Your task to perform on an android device: refresh tabs in the chrome app Image 0: 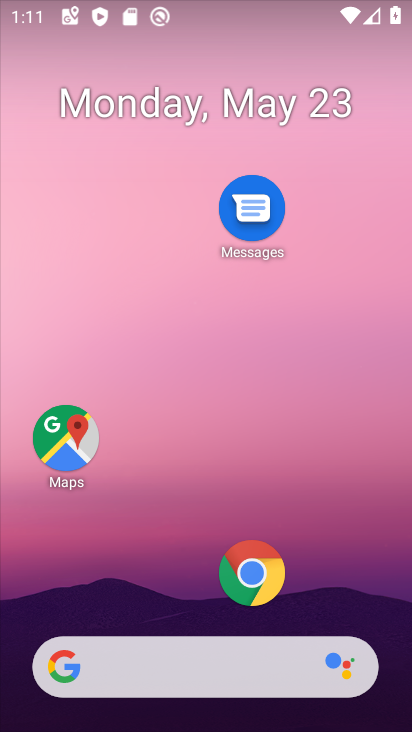
Step 0: drag from (160, 546) to (168, 155)
Your task to perform on an android device: refresh tabs in the chrome app Image 1: 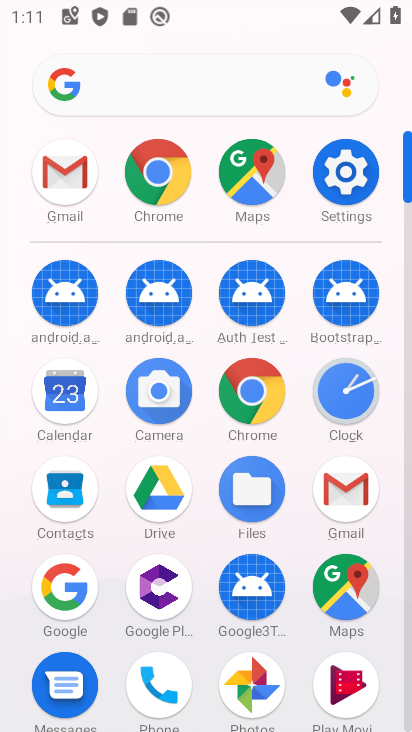
Step 1: click (167, 180)
Your task to perform on an android device: refresh tabs in the chrome app Image 2: 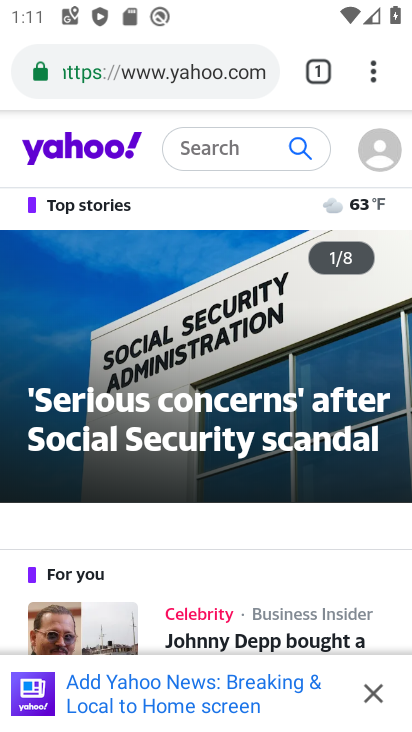
Step 2: click (376, 689)
Your task to perform on an android device: refresh tabs in the chrome app Image 3: 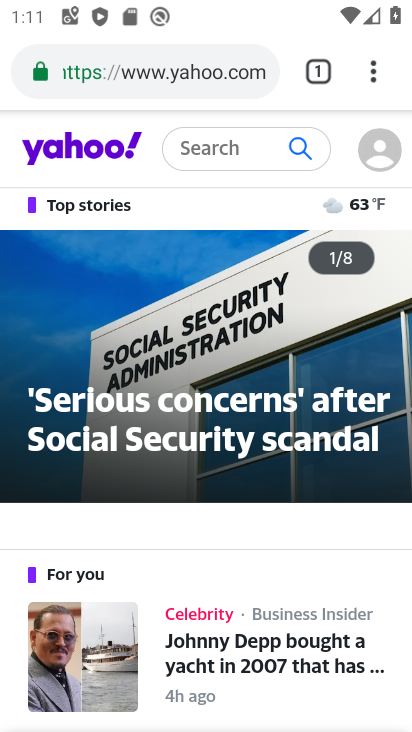
Step 3: click (370, 76)
Your task to perform on an android device: refresh tabs in the chrome app Image 4: 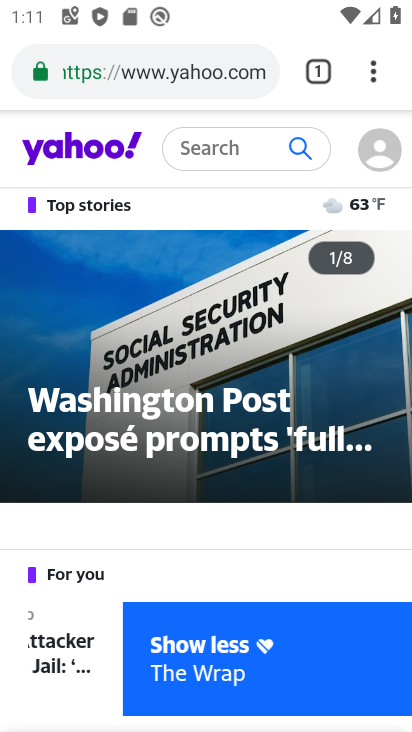
Step 4: task complete